Your task to perform on an android device: Open Reddit.com Image 0: 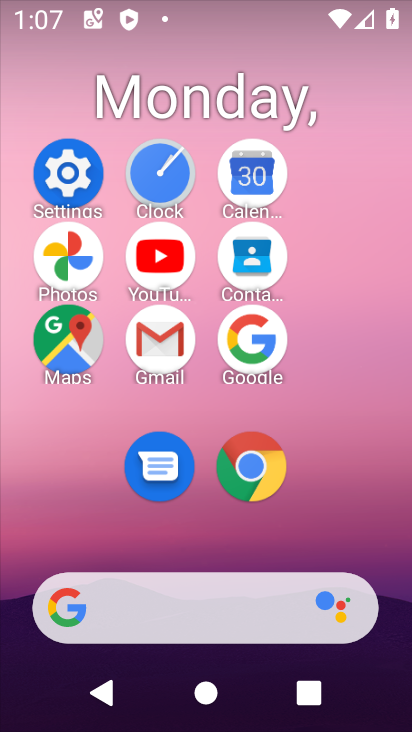
Step 0: click (255, 479)
Your task to perform on an android device: Open Reddit.com Image 1: 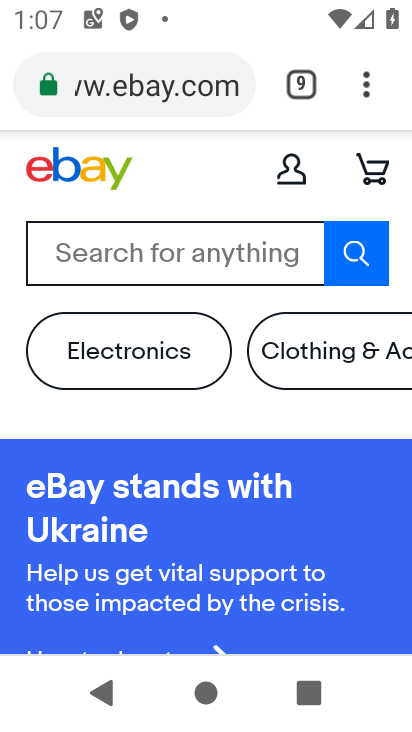
Step 1: click (291, 82)
Your task to perform on an android device: Open Reddit.com Image 2: 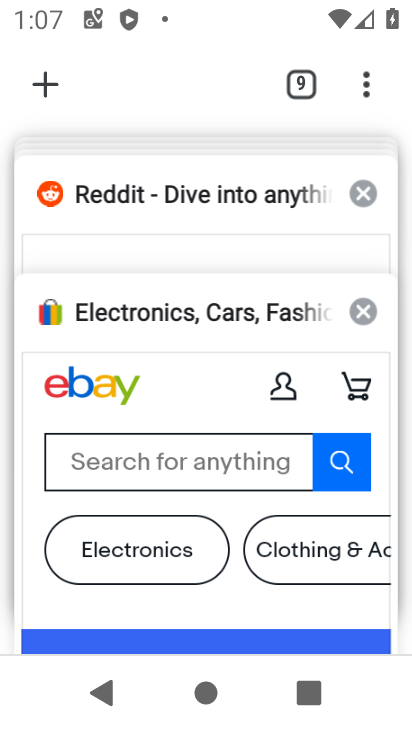
Step 2: click (181, 210)
Your task to perform on an android device: Open Reddit.com Image 3: 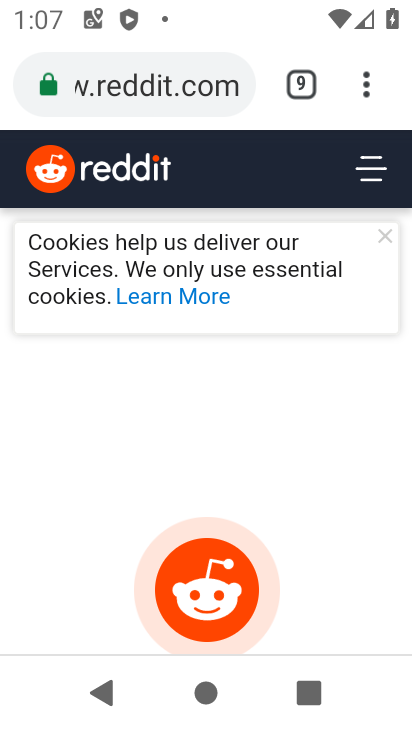
Step 3: task complete